Your task to perform on an android device: Go to wifi settings Image 0: 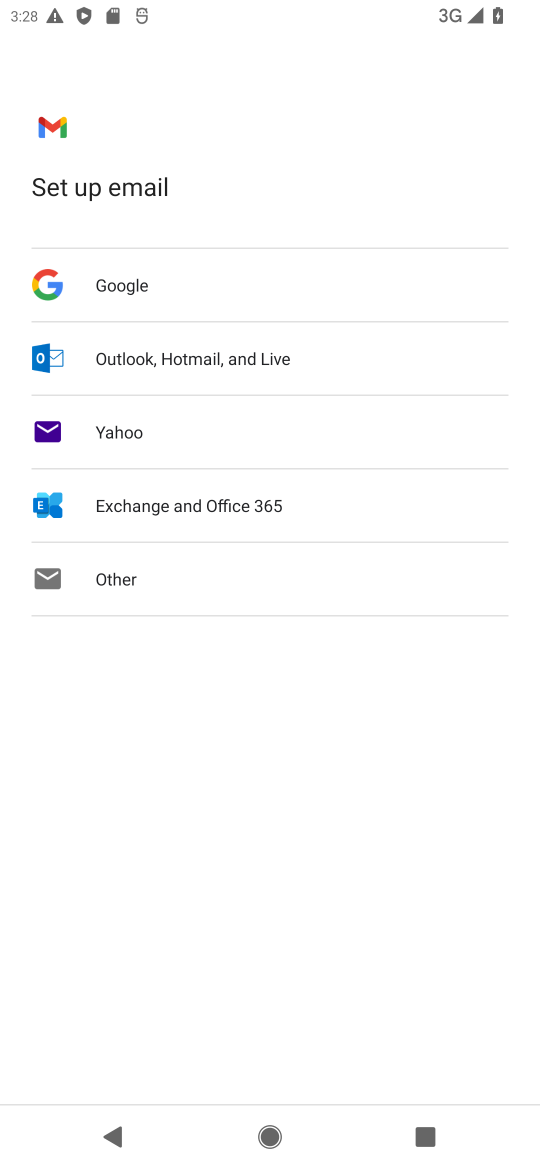
Step 0: press home button
Your task to perform on an android device: Go to wifi settings Image 1: 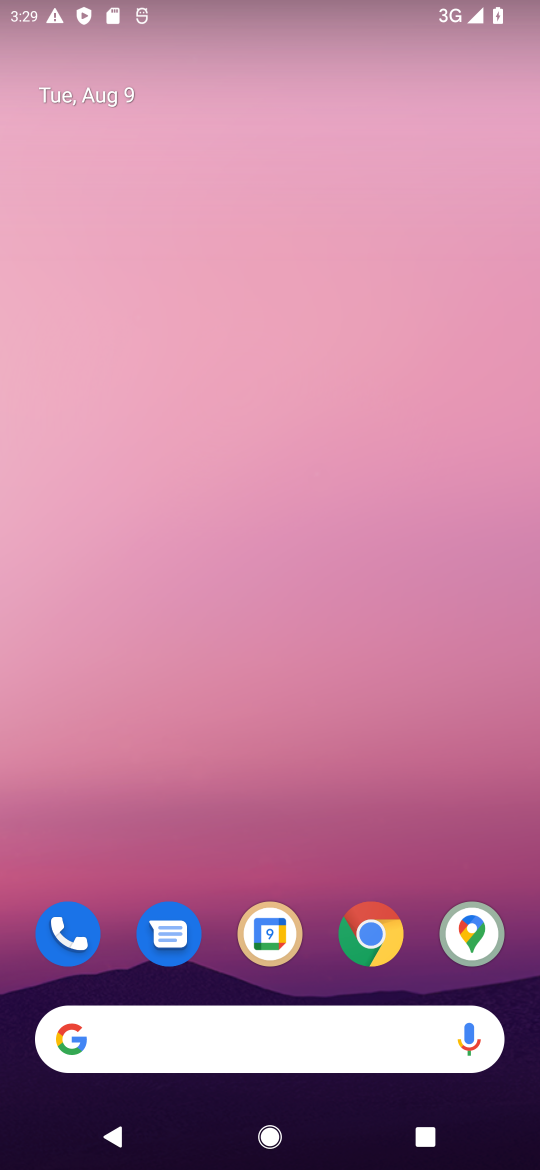
Step 1: drag from (310, 977) to (206, 19)
Your task to perform on an android device: Go to wifi settings Image 2: 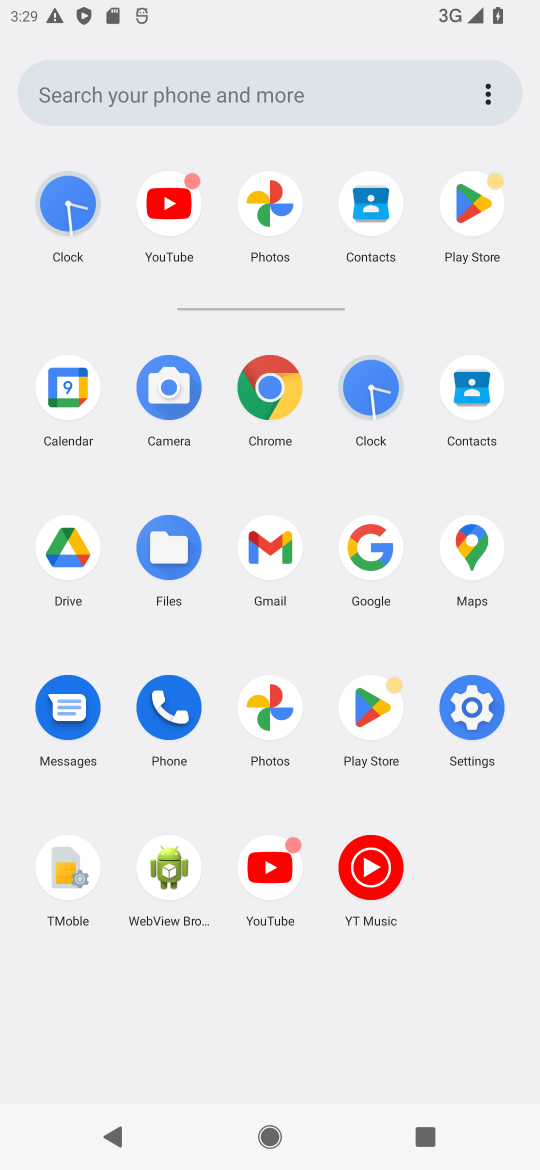
Step 2: click (482, 692)
Your task to perform on an android device: Go to wifi settings Image 3: 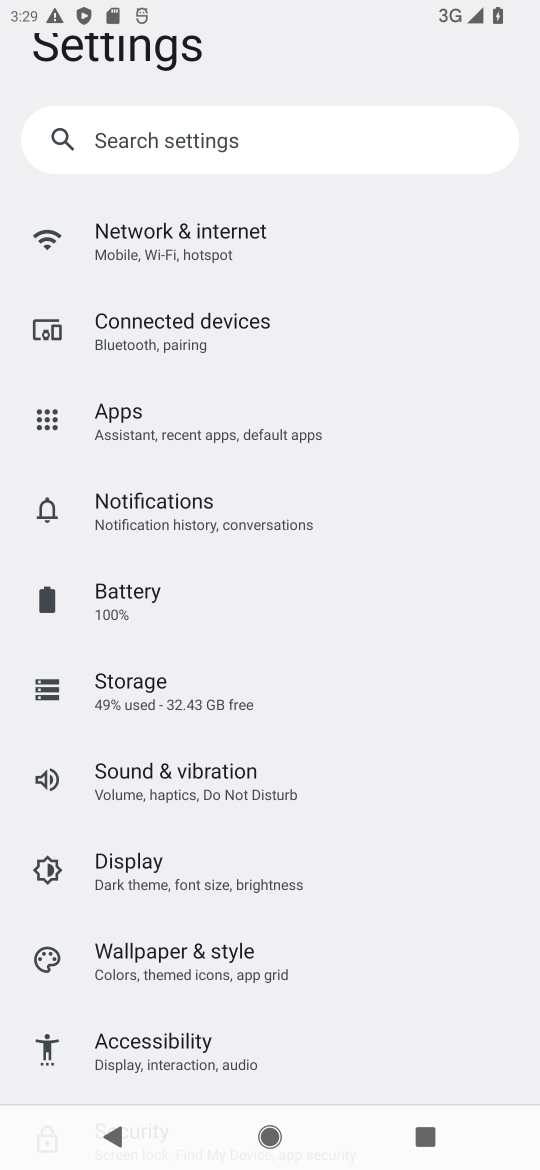
Step 3: click (179, 242)
Your task to perform on an android device: Go to wifi settings Image 4: 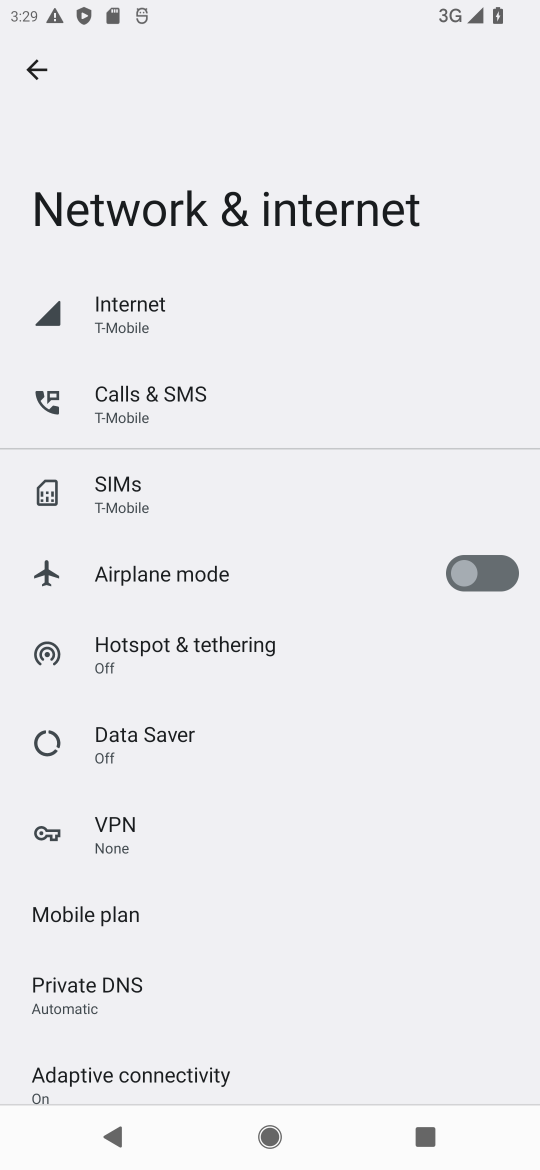
Step 4: task complete